Your task to perform on an android device: install app "VLC for Android" Image 0: 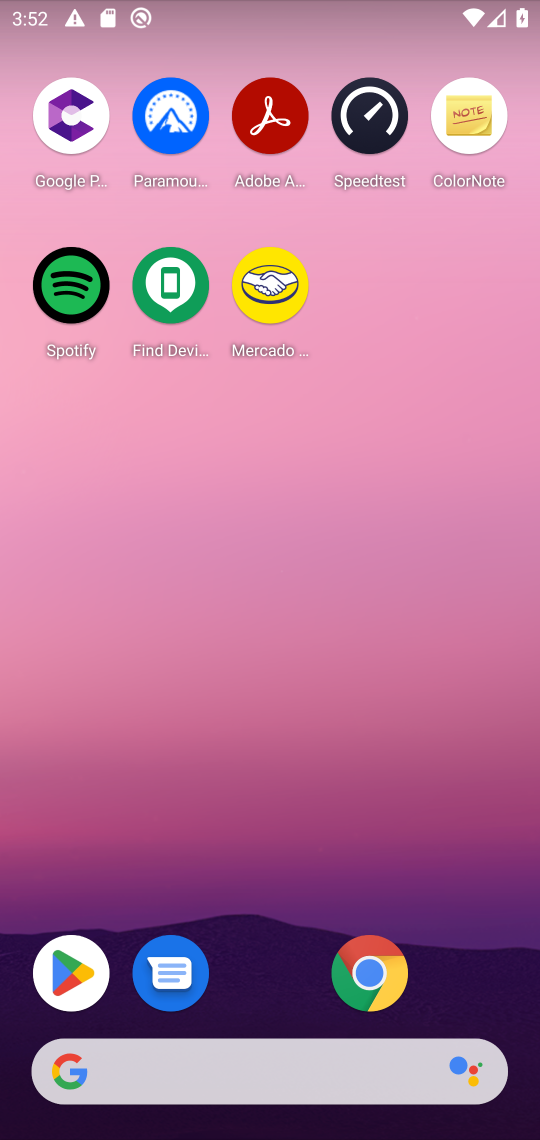
Step 0: drag from (110, 1024) to (211, 263)
Your task to perform on an android device: install app "VLC for Android" Image 1: 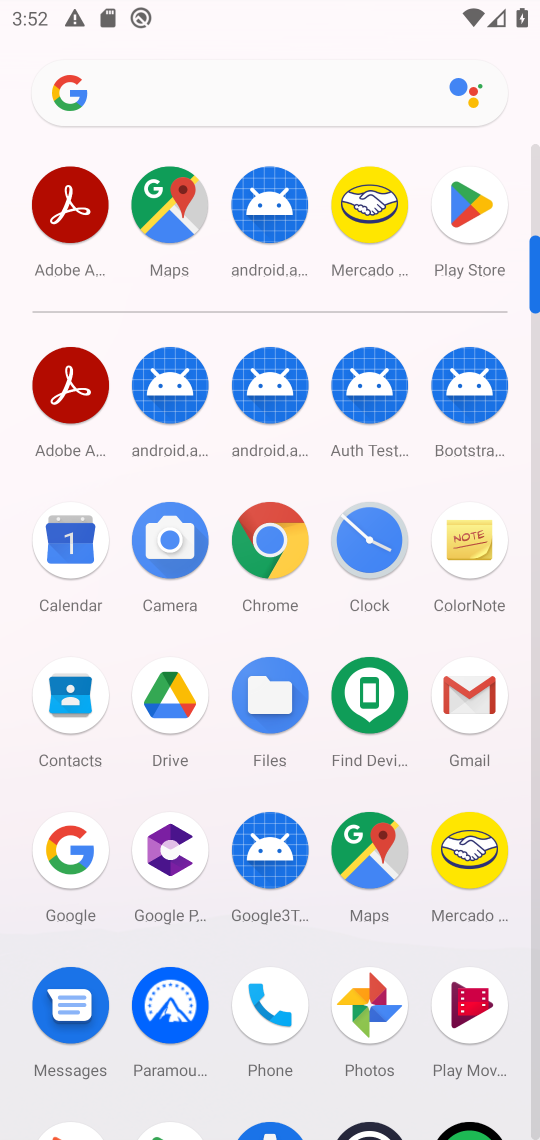
Step 1: click (474, 217)
Your task to perform on an android device: install app "VLC for Android" Image 2: 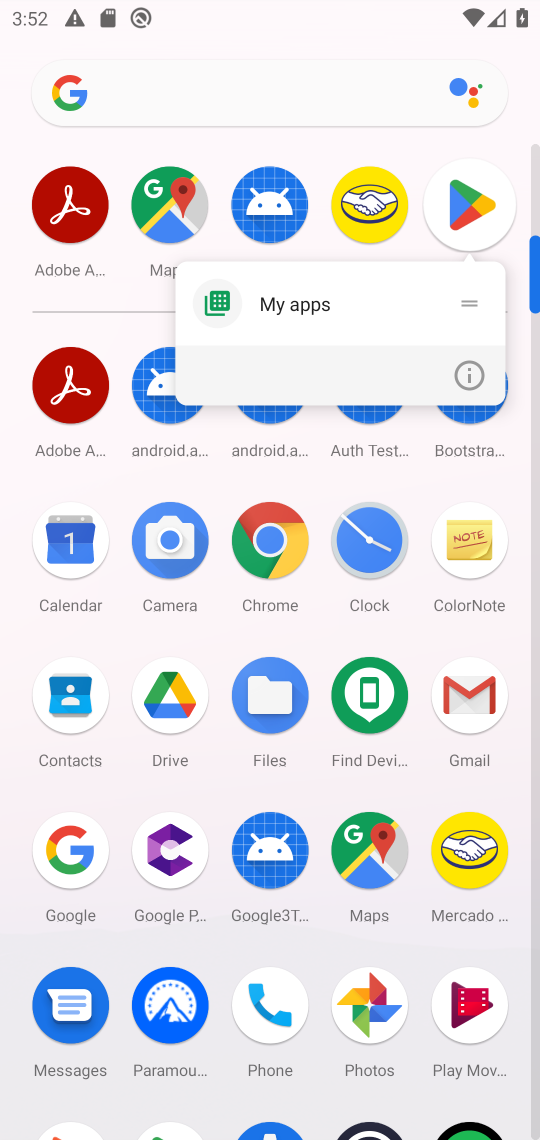
Step 2: click (478, 218)
Your task to perform on an android device: install app "VLC for Android" Image 3: 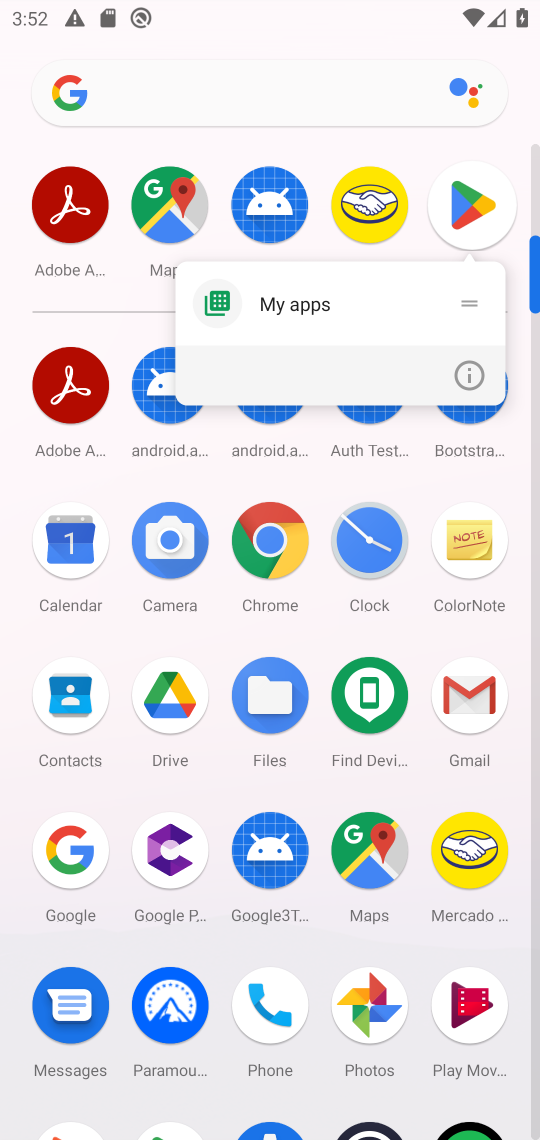
Step 3: click (478, 218)
Your task to perform on an android device: install app "VLC for Android" Image 4: 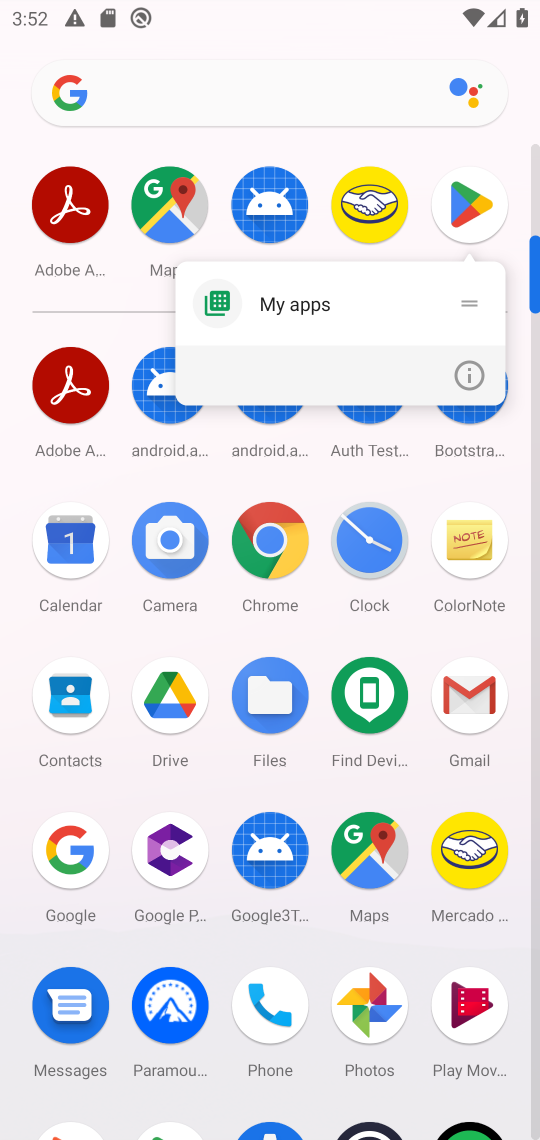
Step 4: click (451, 192)
Your task to perform on an android device: install app "VLC for Android" Image 5: 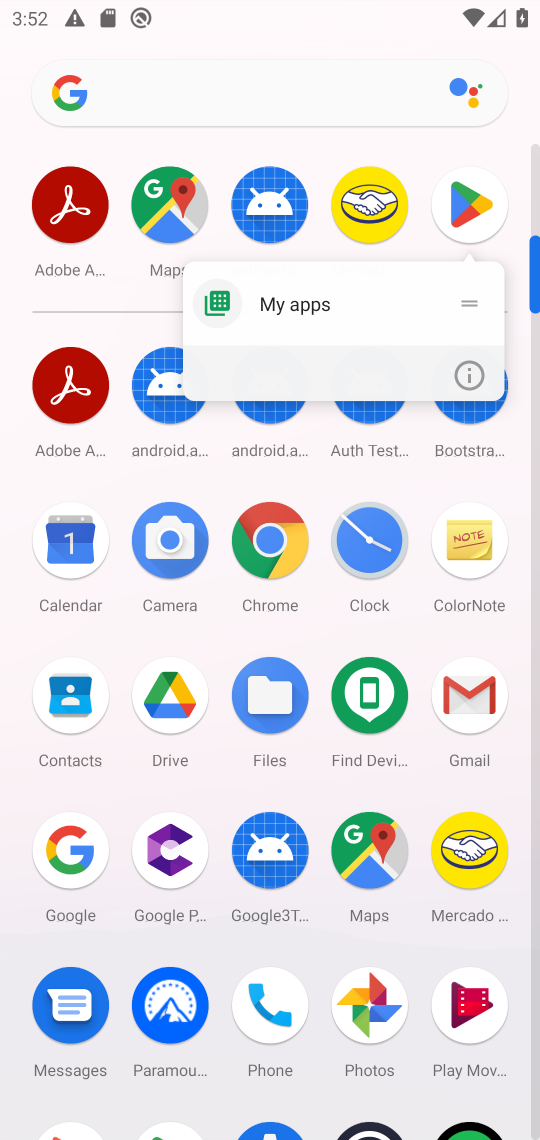
Step 5: click (454, 190)
Your task to perform on an android device: install app "VLC for Android" Image 6: 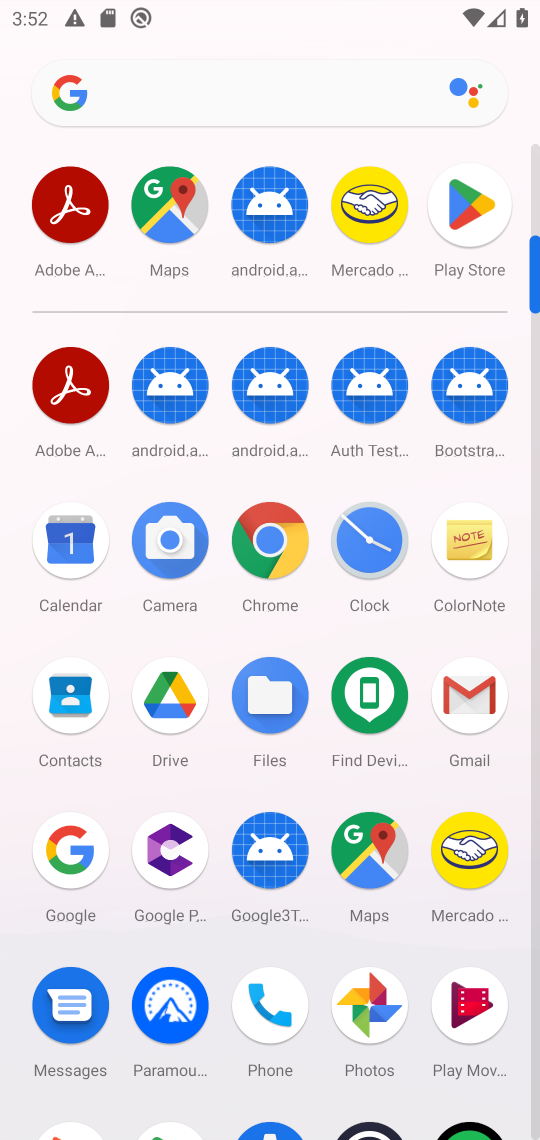
Step 6: click (455, 190)
Your task to perform on an android device: install app "VLC for Android" Image 7: 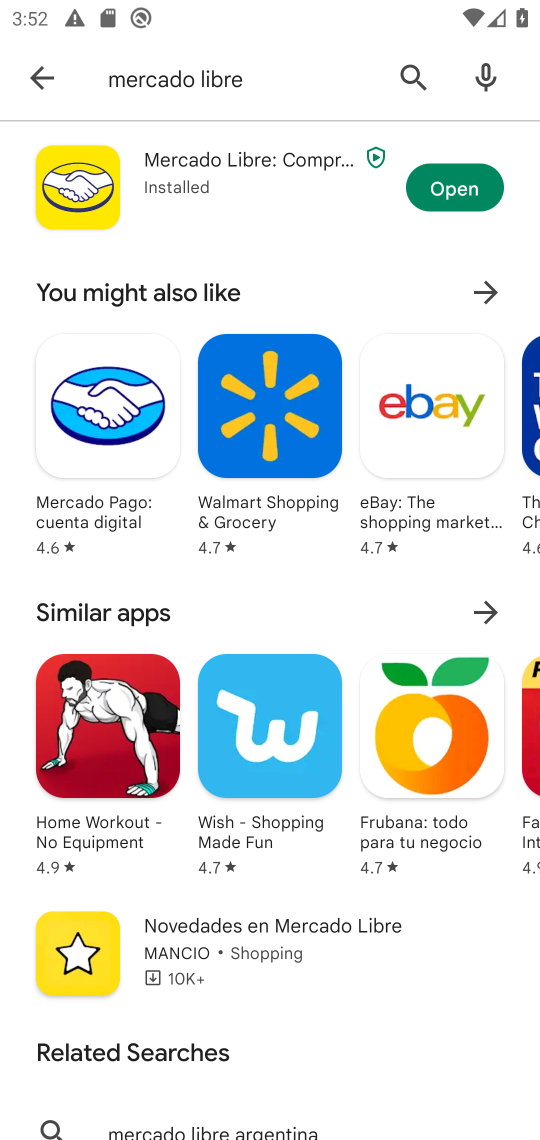
Step 7: click (41, 64)
Your task to perform on an android device: install app "VLC for Android" Image 8: 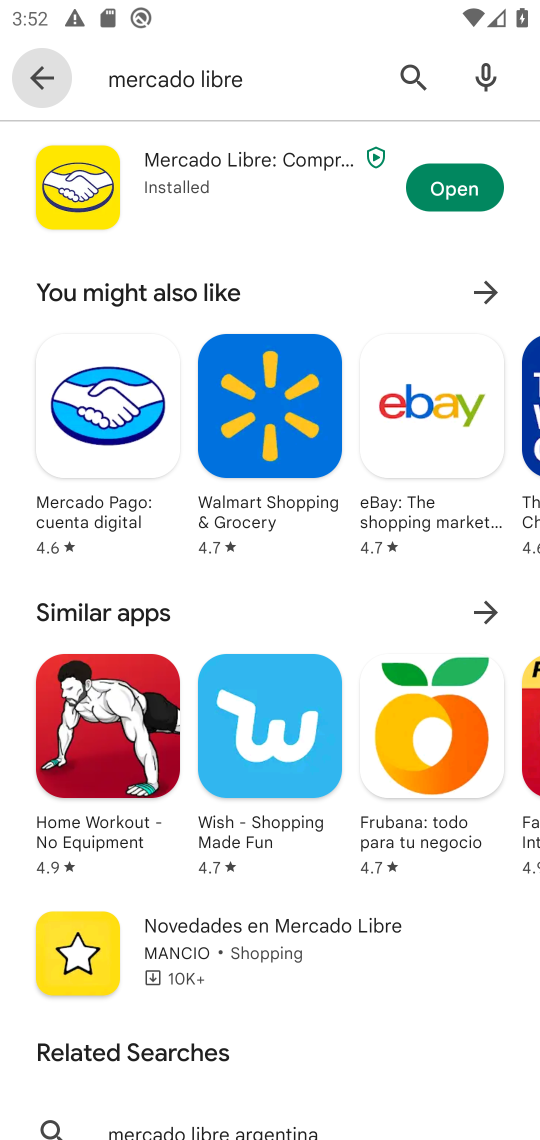
Step 8: click (43, 62)
Your task to perform on an android device: install app "VLC for Android" Image 9: 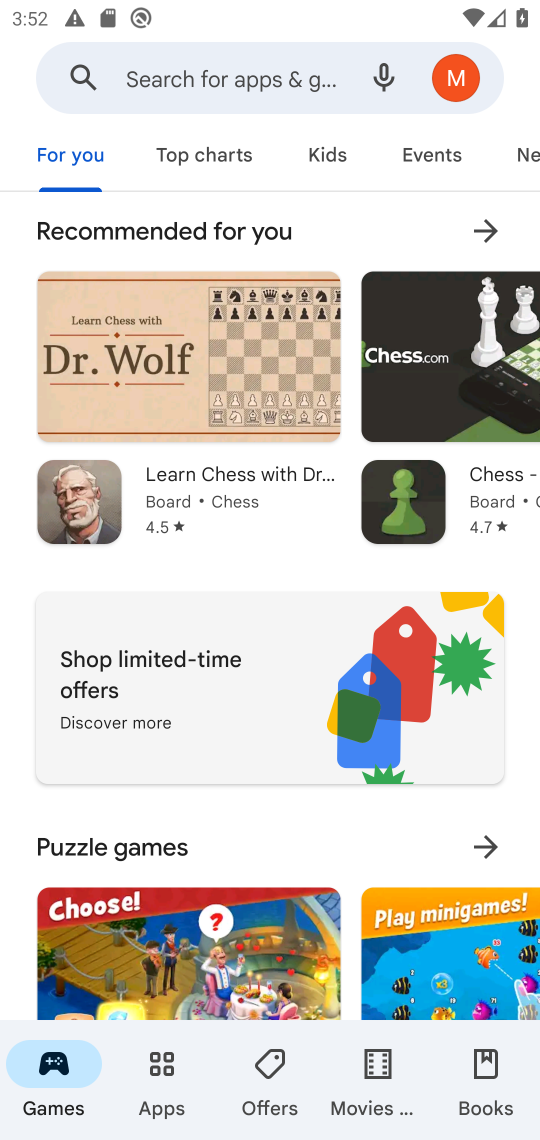
Step 9: click (171, 87)
Your task to perform on an android device: install app "VLC for Android" Image 10: 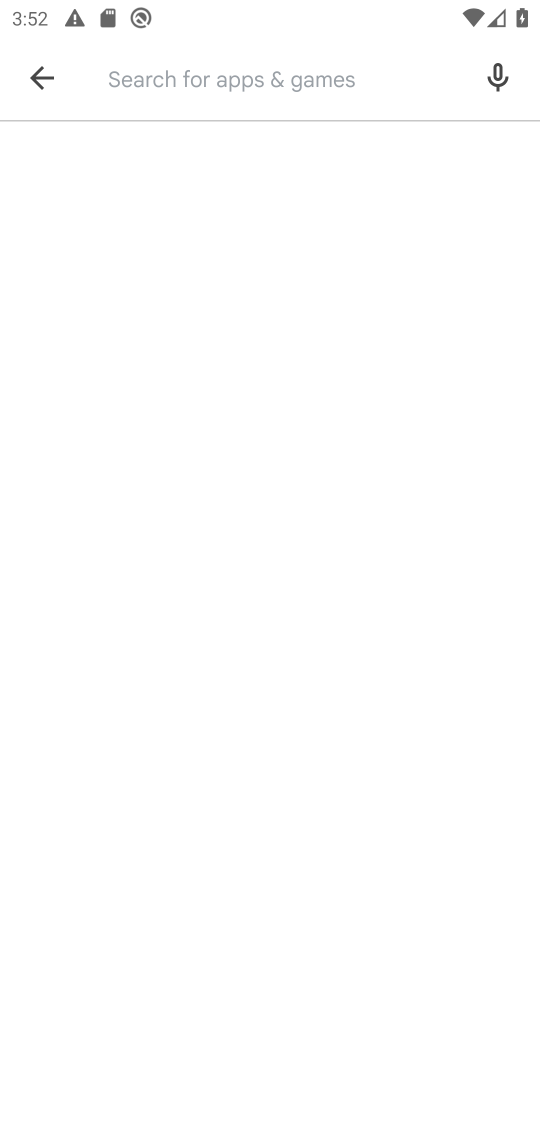
Step 10: click (171, 88)
Your task to perform on an android device: install app "VLC for Android" Image 11: 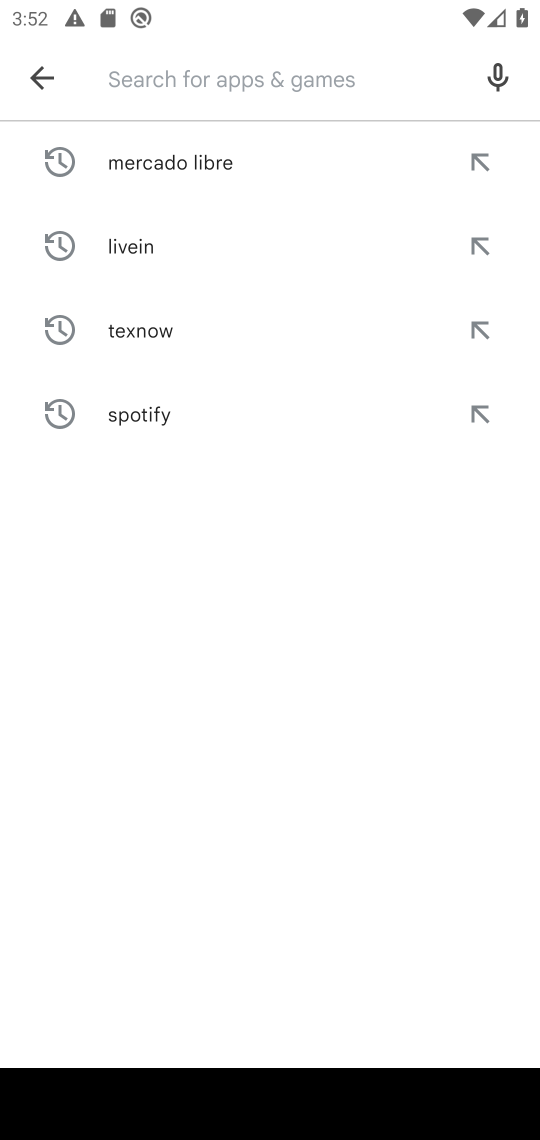
Step 11: click (171, 88)
Your task to perform on an android device: install app "VLC for Android" Image 12: 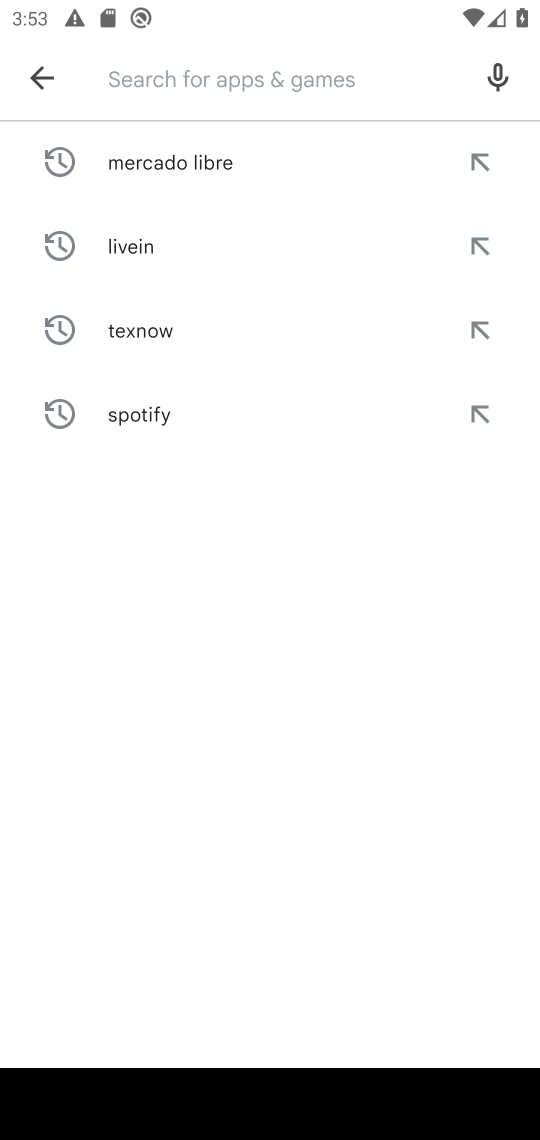
Step 12: type "Vlc for android"
Your task to perform on an android device: install app "VLC for Android" Image 13: 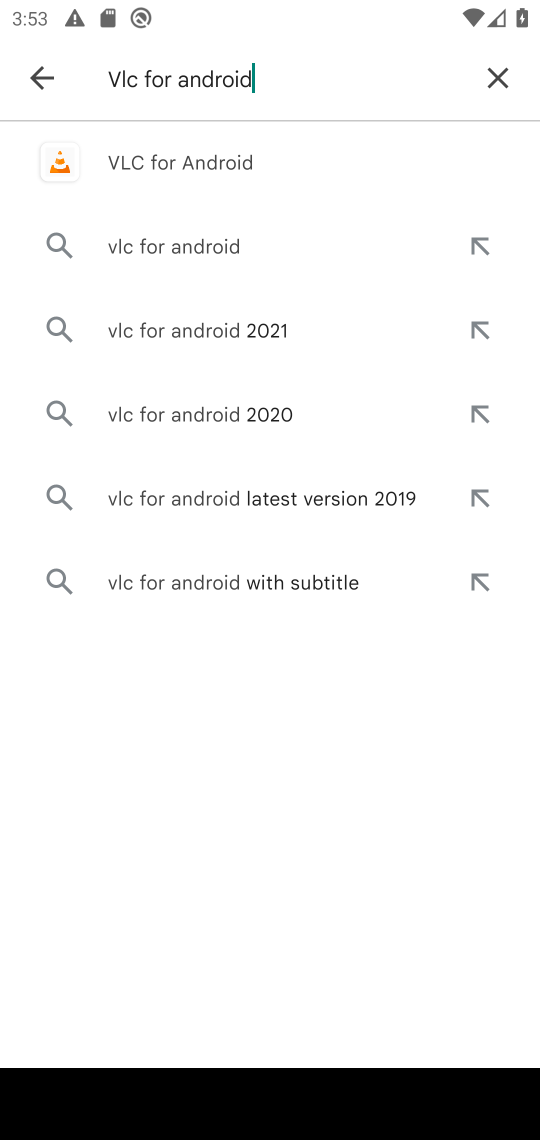
Step 13: click (197, 157)
Your task to perform on an android device: install app "VLC for Android" Image 14: 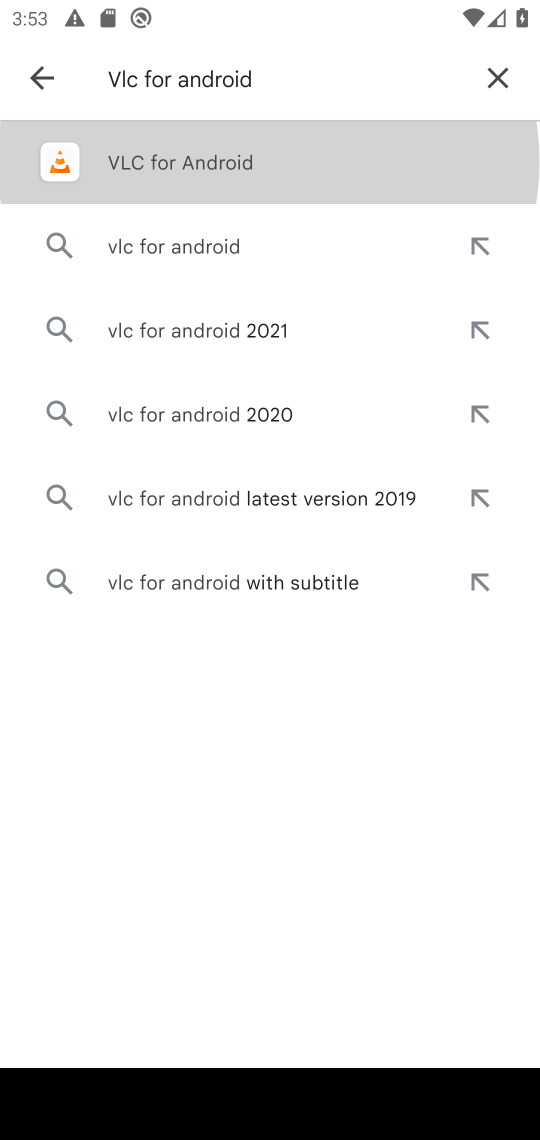
Step 14: click (201, 154)
Your task to perform on an android device: install app "VLC for Android" Image 15: 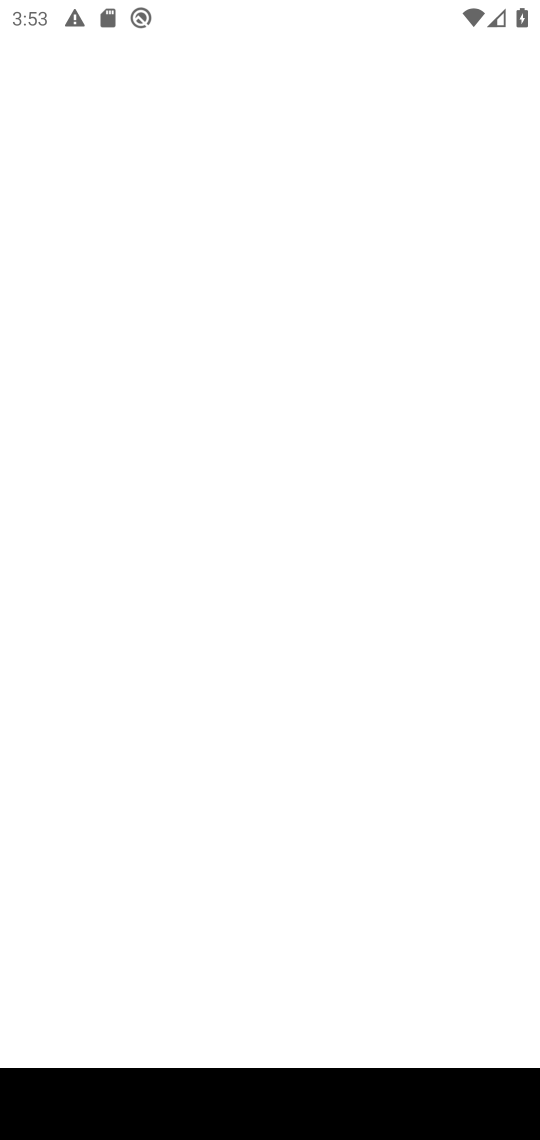
Step 15: click (206, 154)
Your task to perform on an android device: install app "VLC for Android" Image 16: 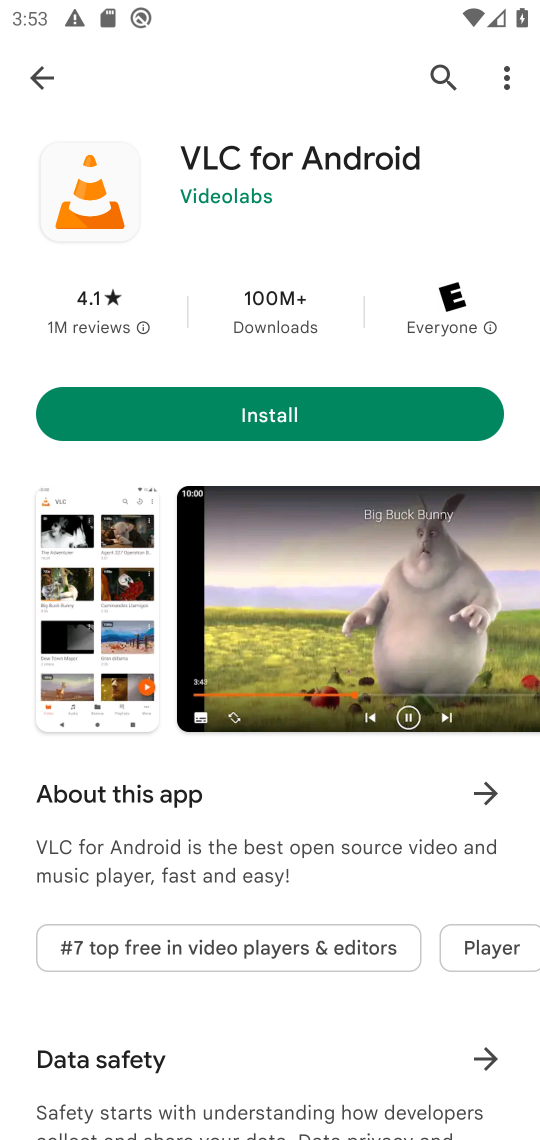
Step 16: click (321, 421)
Your task to perform on an android device: install app "VLC for Android" Image 17: 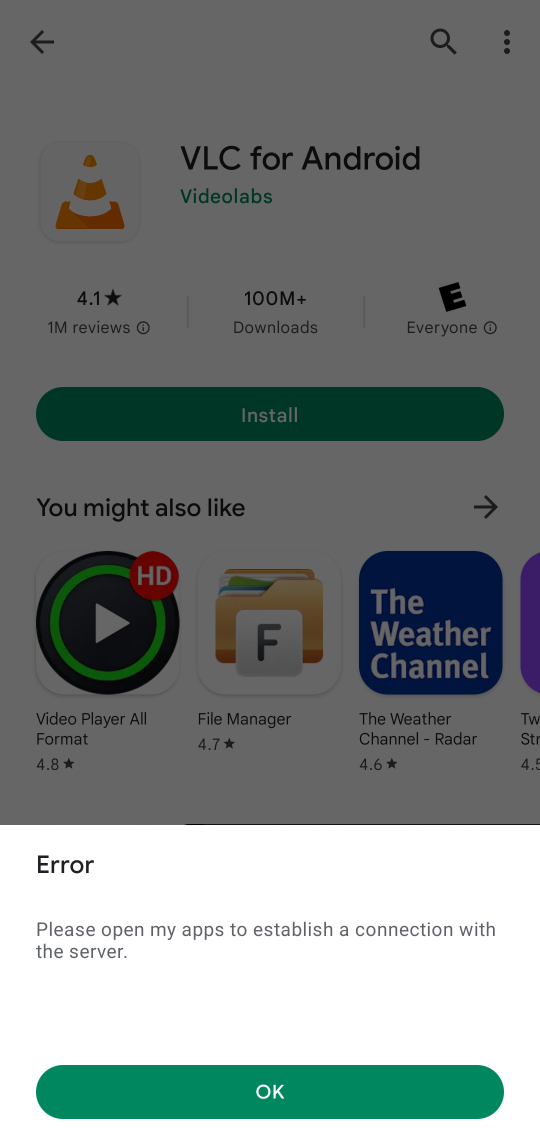
Step 17: click (287, 1092)
Your task to perform on an android device: install app "VLC for Android" Image 18: 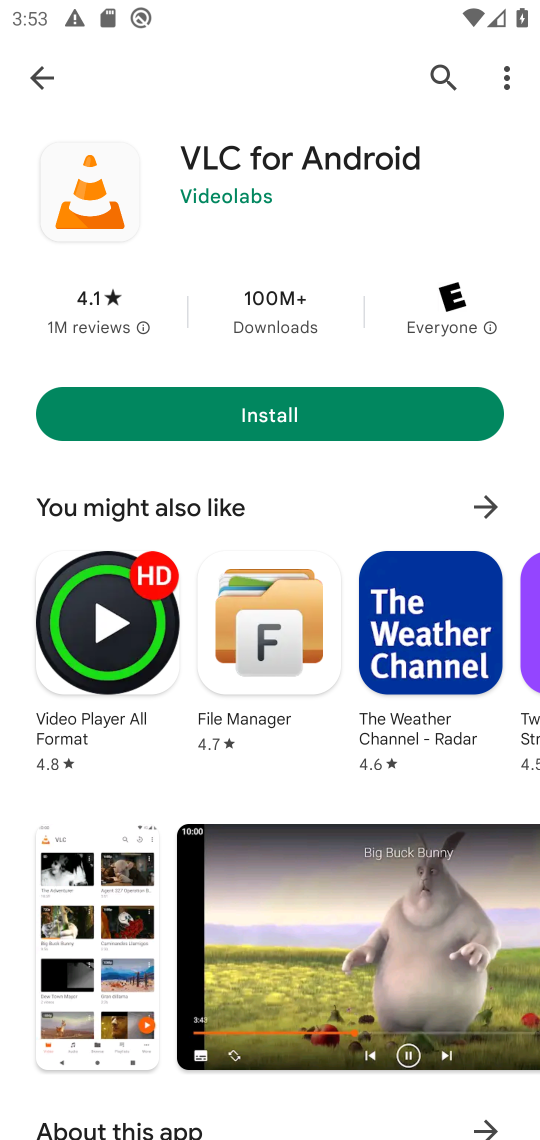
Step 18: click (287, 1092)
Your task to perform on an android device: install app "VLC for Android" Image 19: 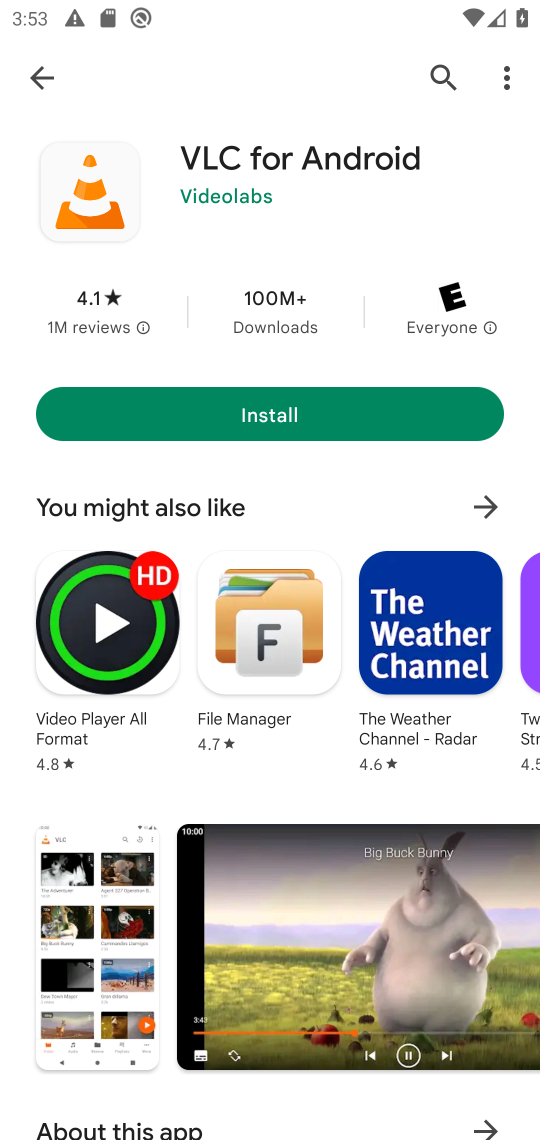
Step 19: click (283, 417)
Your task to perform on an android device: install app "VLC for Android" Image 20: 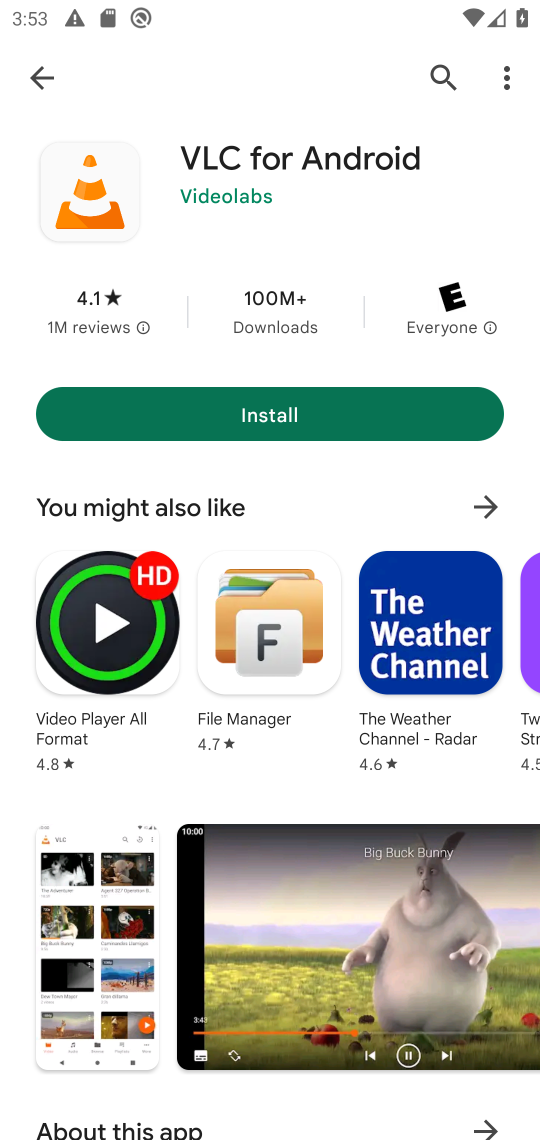
Step 20: click (283, 417)
Your task to perform on an android device: install app "VLC for Android" Image 21: 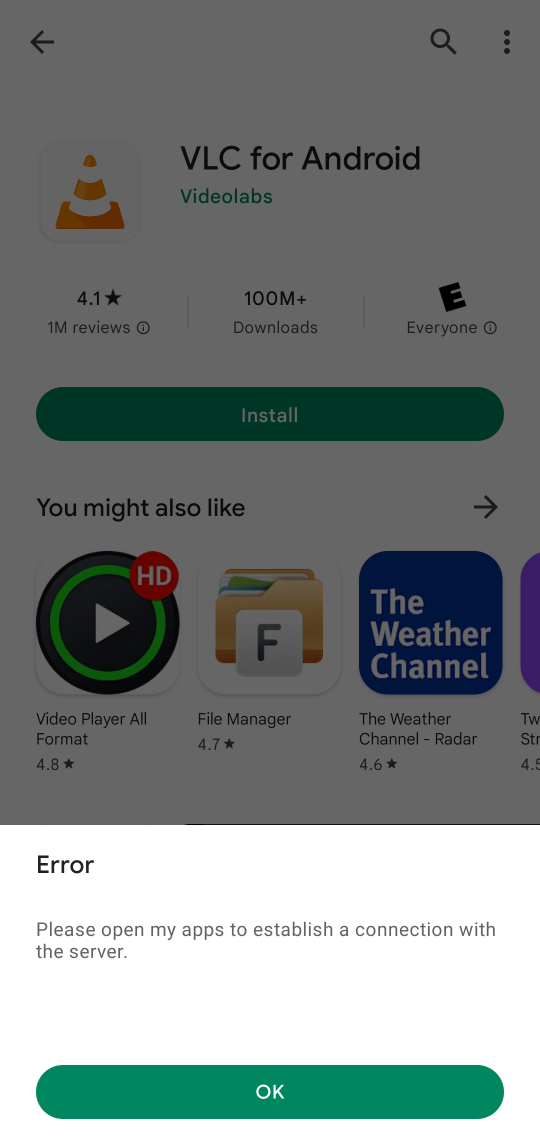
Step 21: click (269, 1092)
Your task to perform on an android device: install app "VLC for Android" Image 22: 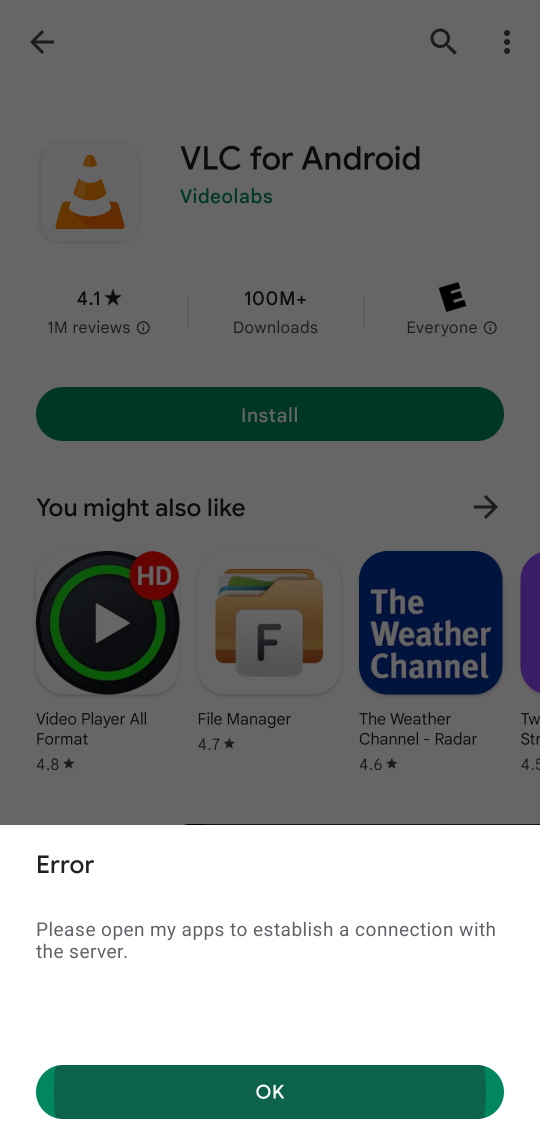
Step 22: click (272, 1094)
Your task to perform on an android device: install app "VLC for Android" Image 23: 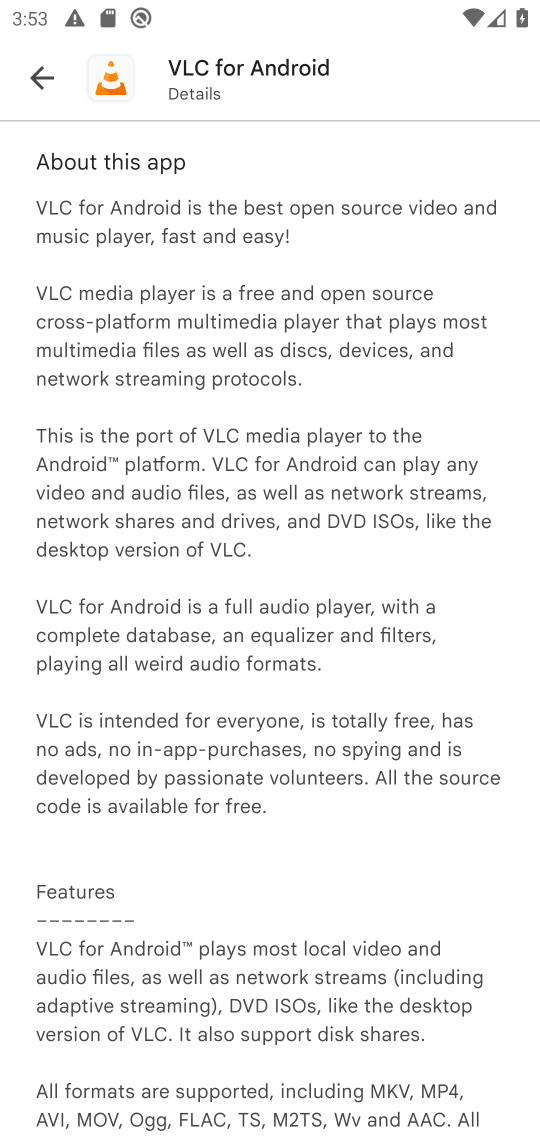
Step 23: task complete